Your task to perform on an android device: open a bookmark in the chrome app Image 0: 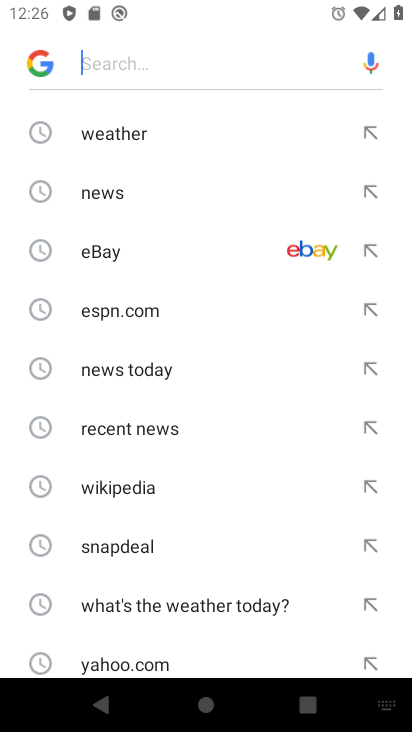
Step 0: press home button
Your task to perform on an android device: open a bookmark in the chrome app Image 1: 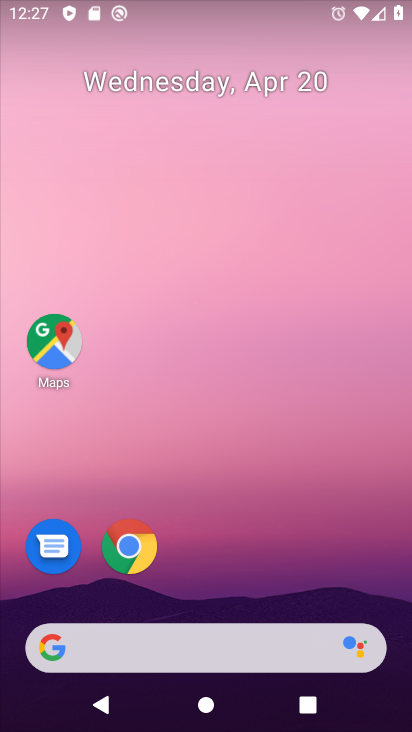
Step 1: click (130, 555)
Your task to perform on an android device: open a bookmark in the chrome app Image 2: 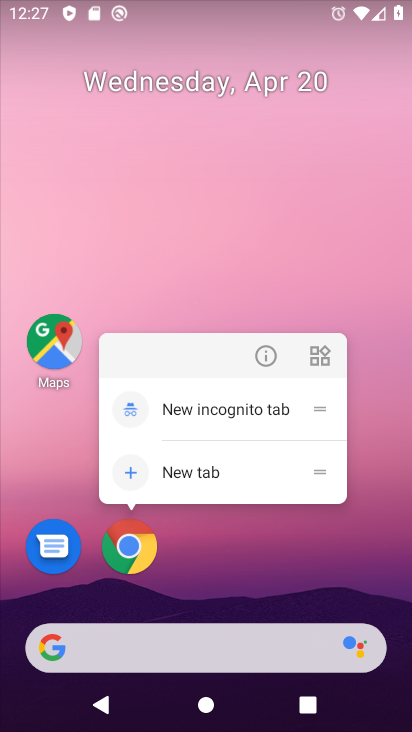
Step 2: click (128, 557)
Your task to perform on an android device: open a bookmark in the chrome app Image 3: 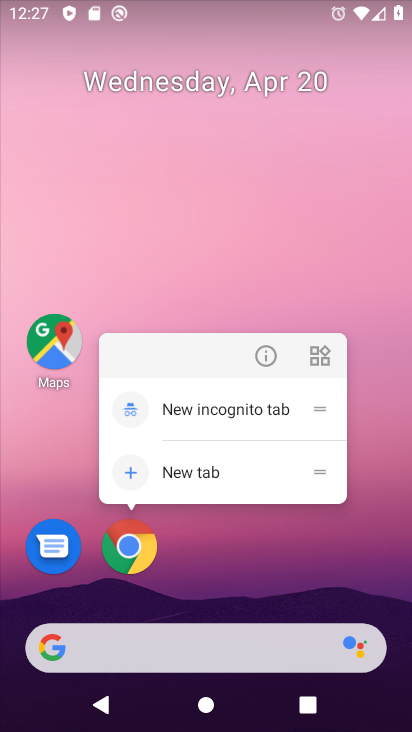
Step 3: click (136, 549)
Your task to perform on an android device: open a bookmark in the chrome app Image 4: 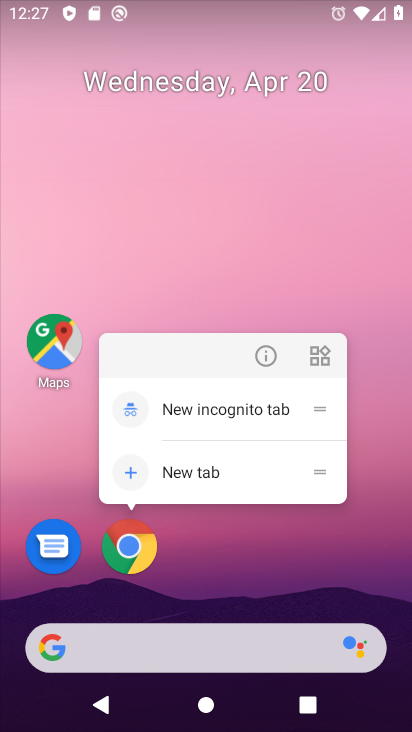
Step 4: click (135, 549)
Your task to perform on an android device: open a bookmark in the chrome app Image 5: 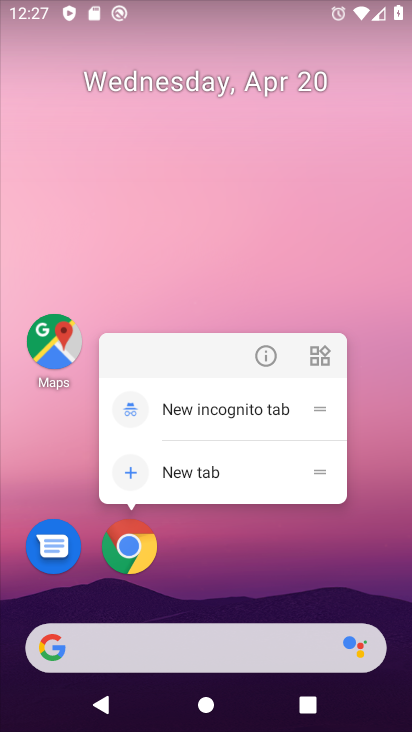
Step 5: click (135, 549)
Your task to perform on an android device: open a bookmark in the chrome app Image 6: 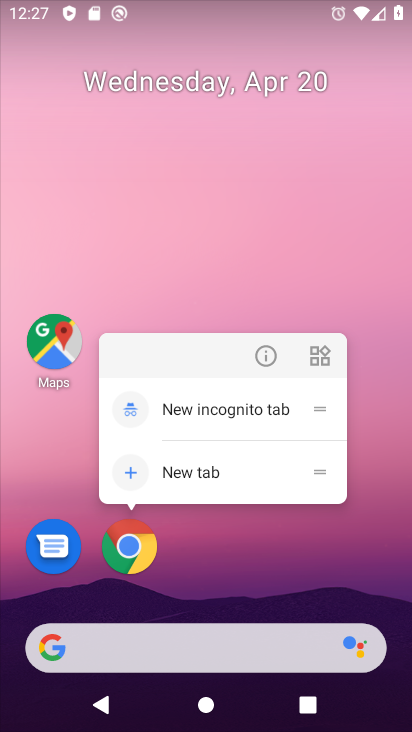
Step 6: click (136, 549)
Your task to perform on an android device: open a bookmark in the chrome app Image 7: 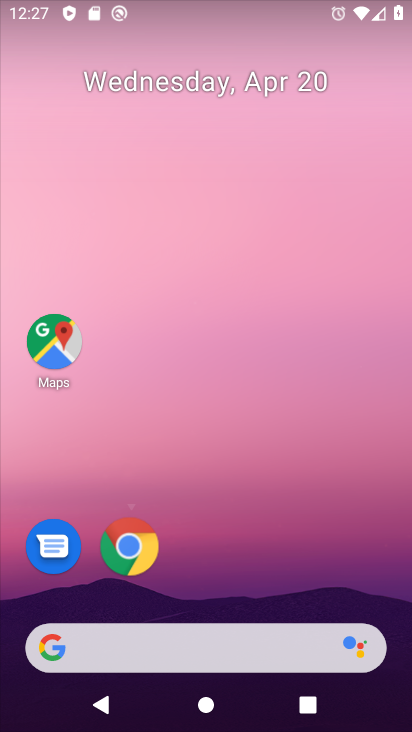
Step 7: click (136, 549)
Your task to perform on an android device: open a bookmark in the chrome app Image 8: 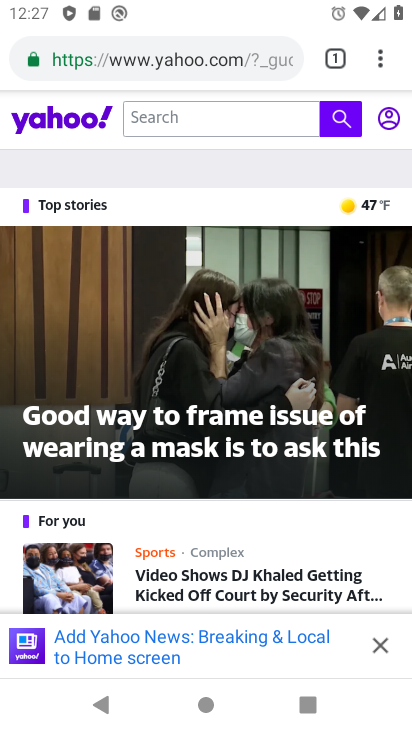
Step 8: click (375, 62)
Your task to perform on an android device: open a bookmark in the chrome app Image 9: 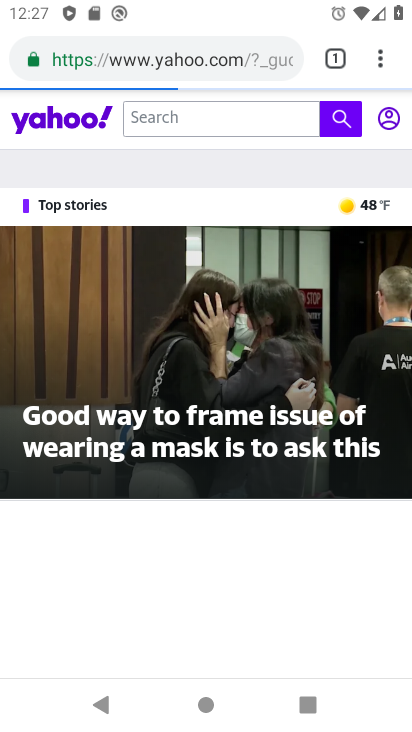
Step 9: click (385, 57)
Your task to perform on an android device: open a bookmark in the chrome app Image 10: 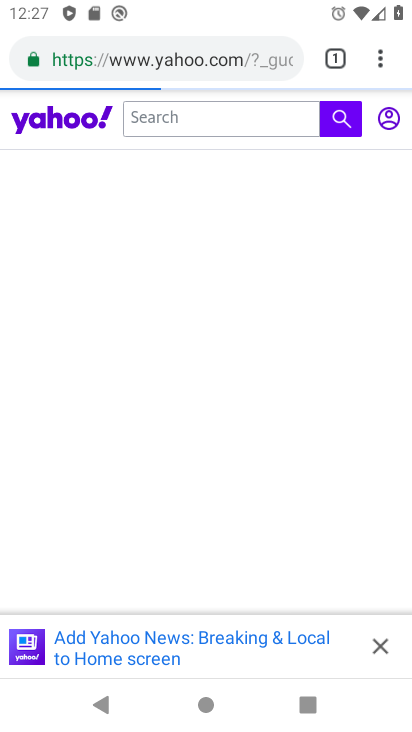
Step 10: click (243, 303)
Your task to perform on an android device: open a bookmark in the chrome app Image 11: 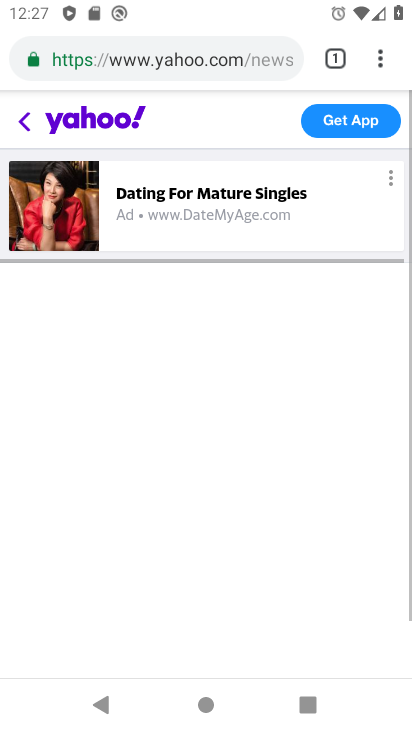
Step 11: drag from (379, 57) to (283, 249)
Your task to perform on an android device: open a bookmark in the chrome app Image 12: 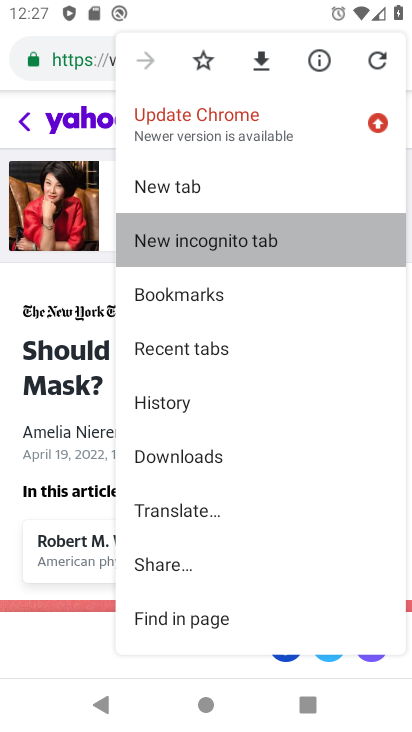
Step 12: click (233, 303)
Your task to perform on an android device: open a bookmark in the chrome app Image 13: 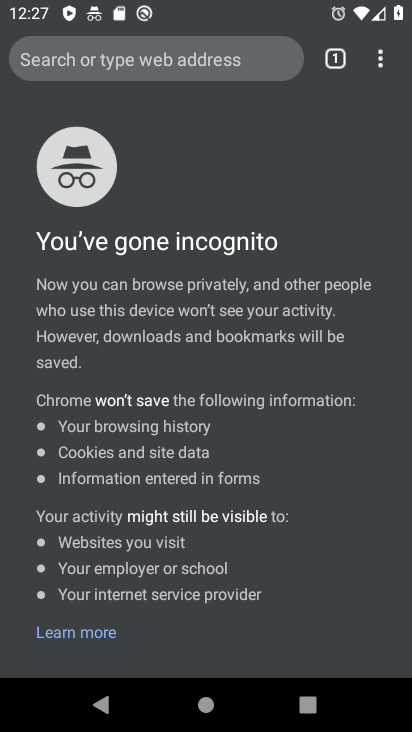
Step 13: click (392, 63)
Your task to perform on an android device: open a bookmark in the chrome app Image 14: 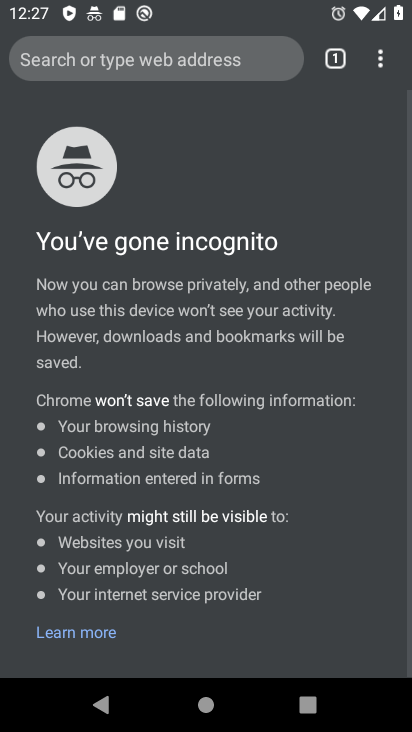
Step 14: click (225, 295)
Your task to perform on an android device: open a bookmark in the chrome app Image 15: 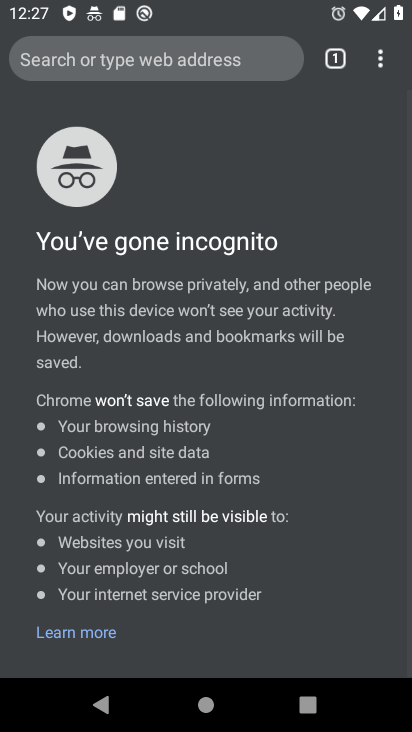
Step 15: drag from (383, 62) to (193, 293)
Your task to perform on an android device: open a bookmark in the chrome app Image 16: 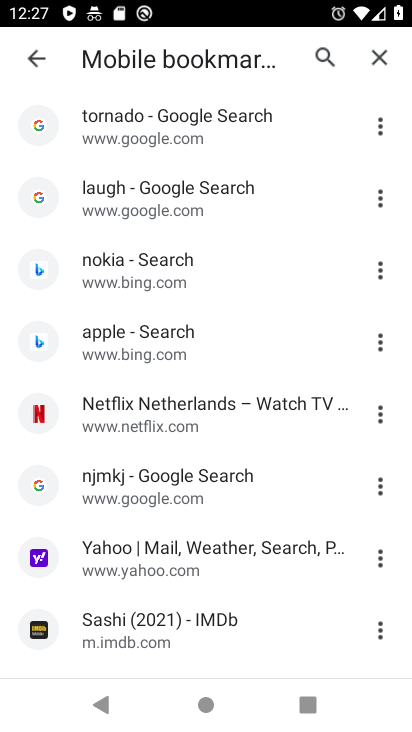
Step 16: click (157, 265)
Your task to perform on an android device: open a bookmark in the chrome app Image 17: 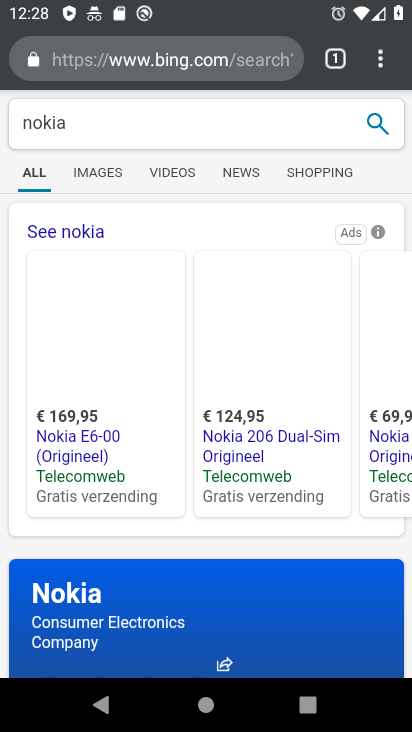
Step 17: task complete